Your task to perform on an android device: Open Youtube and go to the subscriptions tab Image 0: 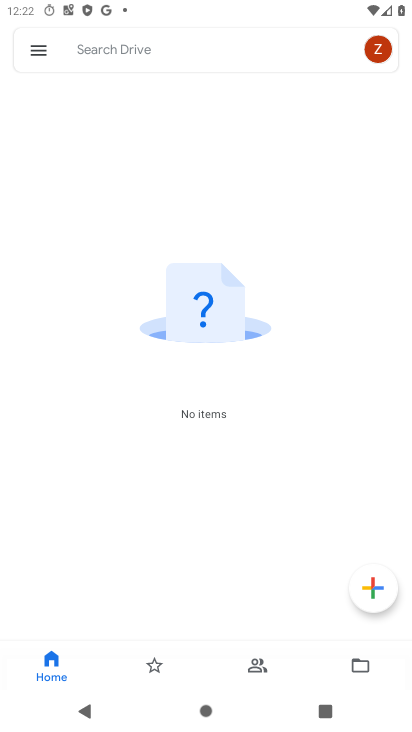
Step 0: press home button
Your task to perform on an android device: Open Youtube and go to the subscriptions tab Image 1: 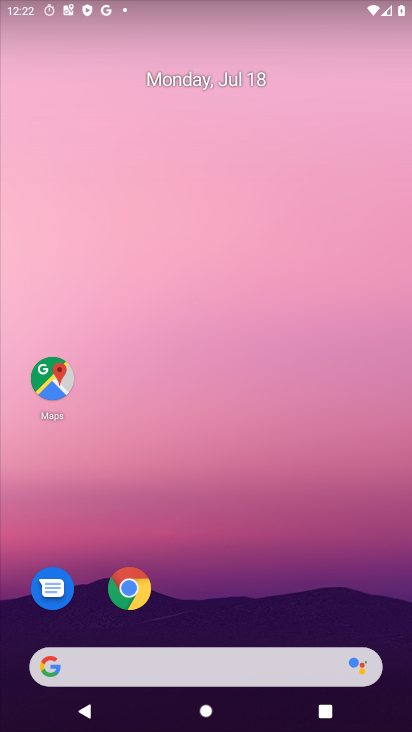
Step 1: drag from (230, 622) to (300, 52)
Your task to perform on an android device: Open Youtube and go to the subscriptions tab Image 2: 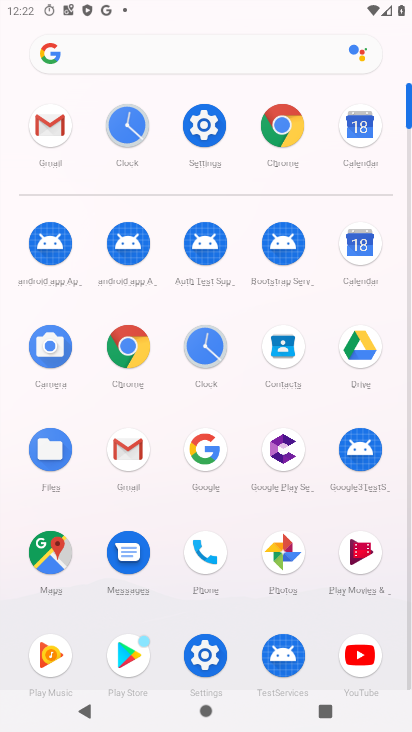
Step 2: click (369, 674)
Your task to perform on an android device: Open Youtube and go to the subscriptions tab Image 3: 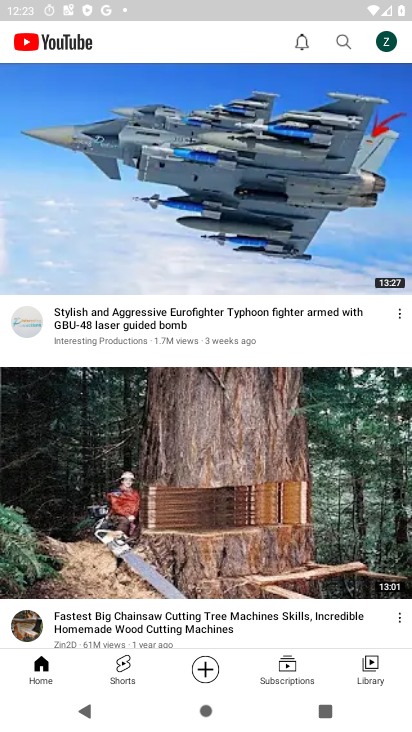
Step 3: click (302, 666)
Your task to perform on an android device: Open Youtube and go to the subscriptions tab Image 4: 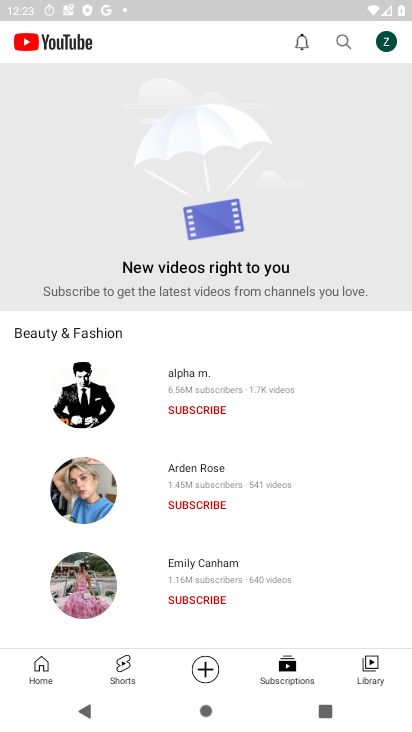
Step 4: task complete